Your task to perform on an android device: Search for logitech g pro on newegg, select the first entry, and add it to the cart. Image 0: 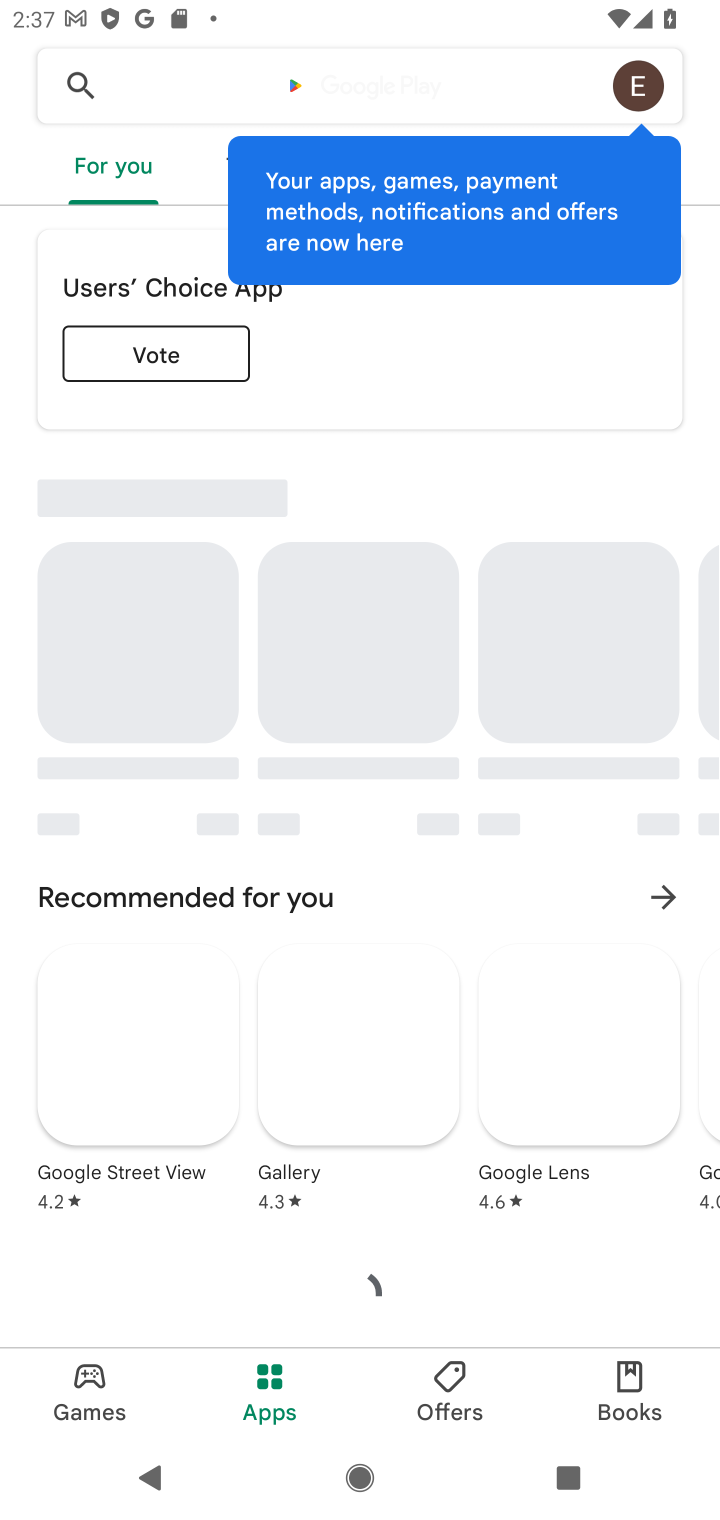
Step 0: press home button
Your task to perform on an android device: Search for logitech g pro on newegg, select the first entry, and add it to the cart. Image 1: 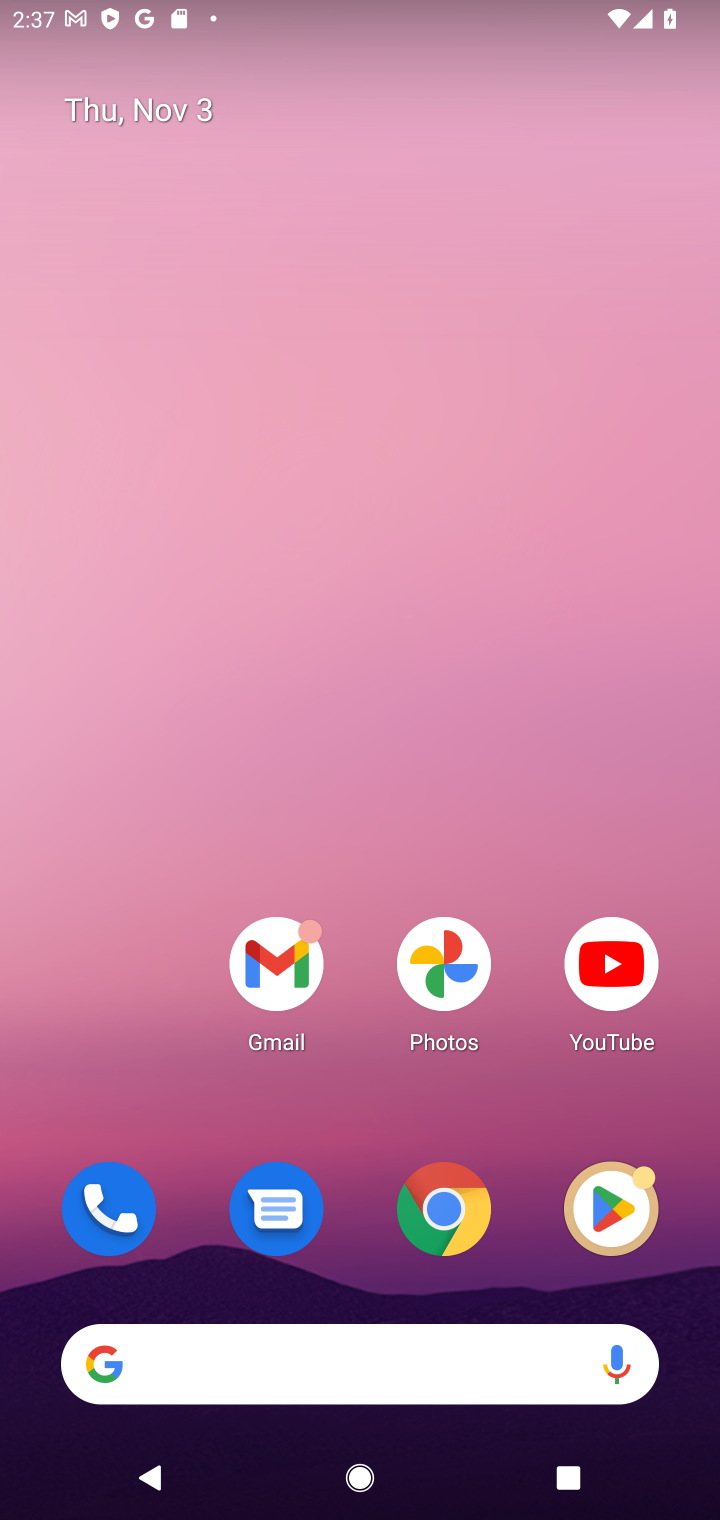
Step 1: click (444, 1216)
Your task to perform on an android device: Search for logitech g pro on newegg, select the first entry, and add it to the cart. Image 2: 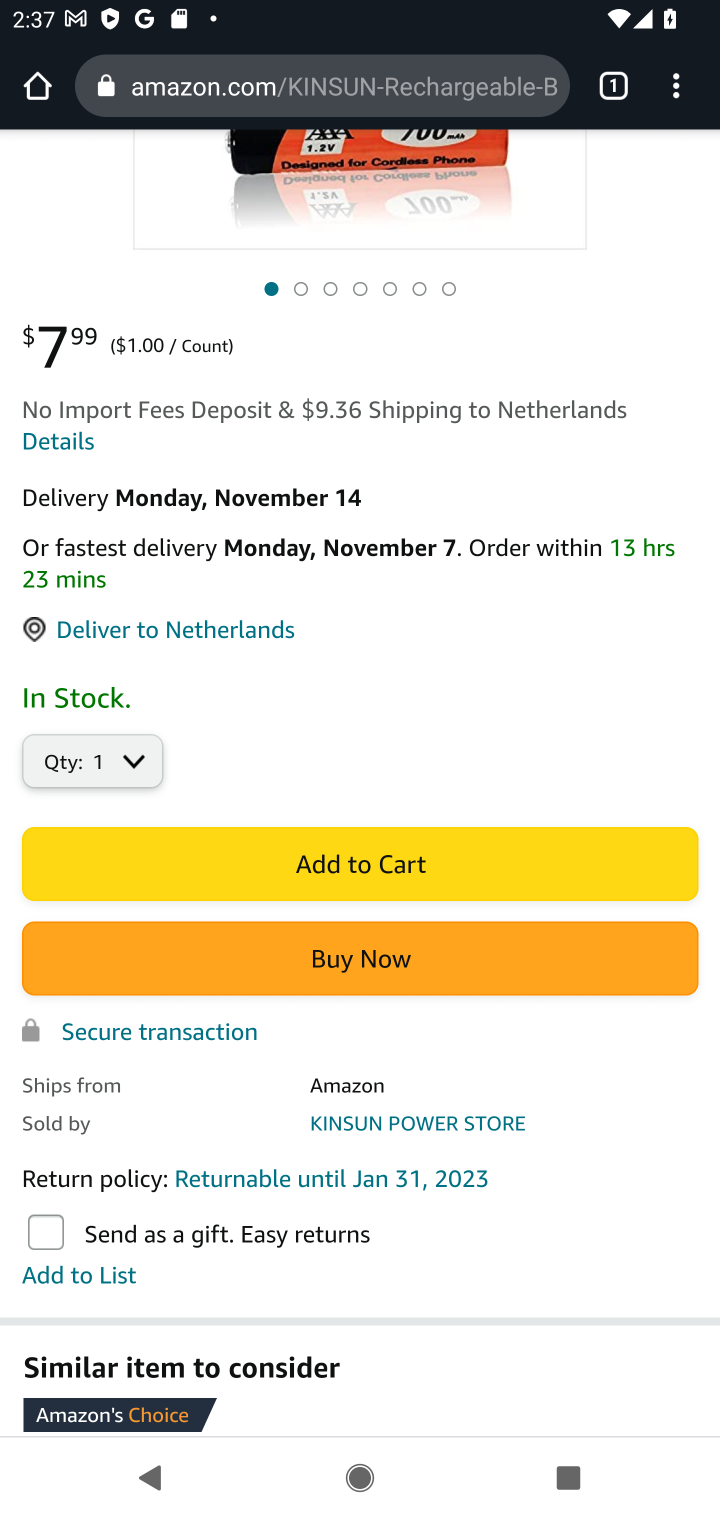
Step 2: click (412, 74)
Your task to perform on an android device: Search for logitech g pro on newegg, select the first entry, and add it to the cart. Image 3: 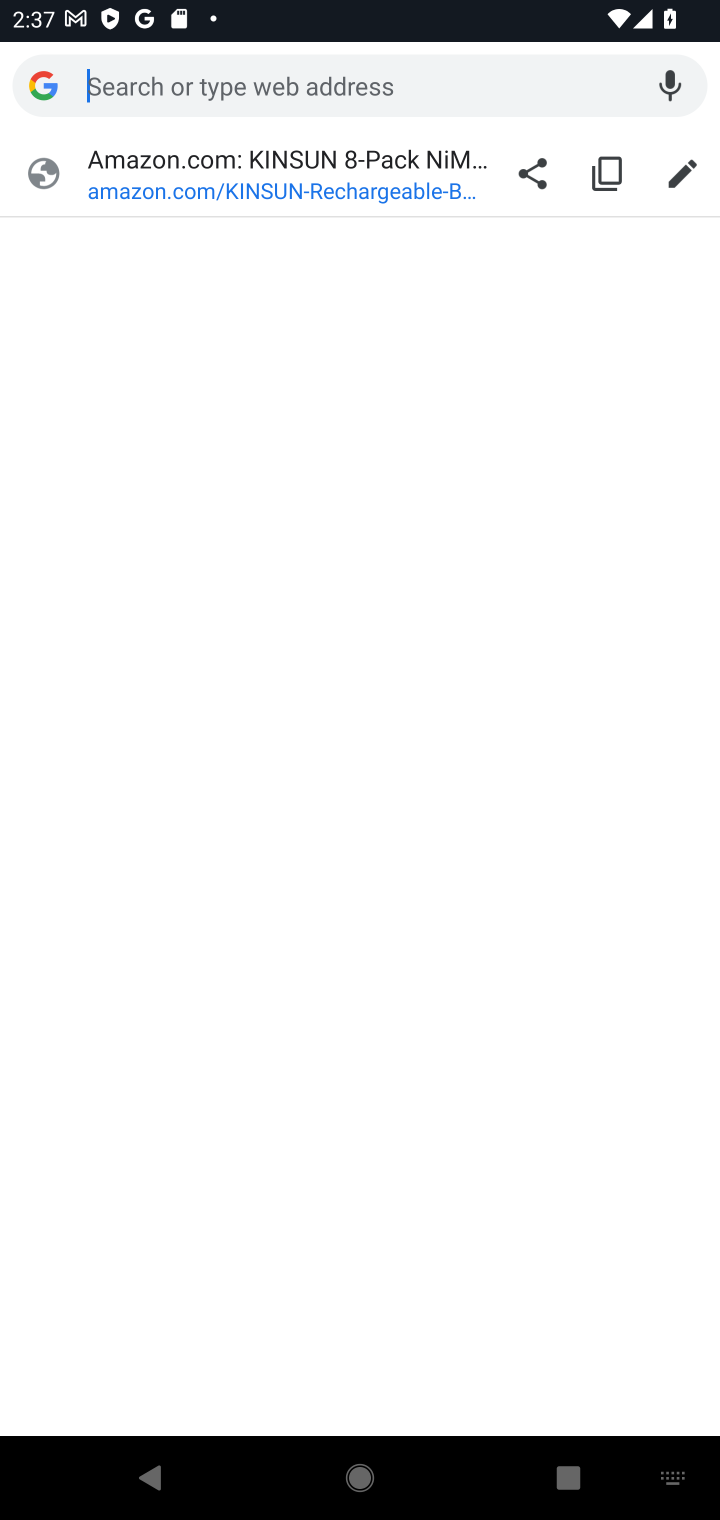
Step 3: type "newegg"
Your task to perform on an android device: Search for logitech g pro on newegg, select the first entry, and add it to the cart. Image 4: 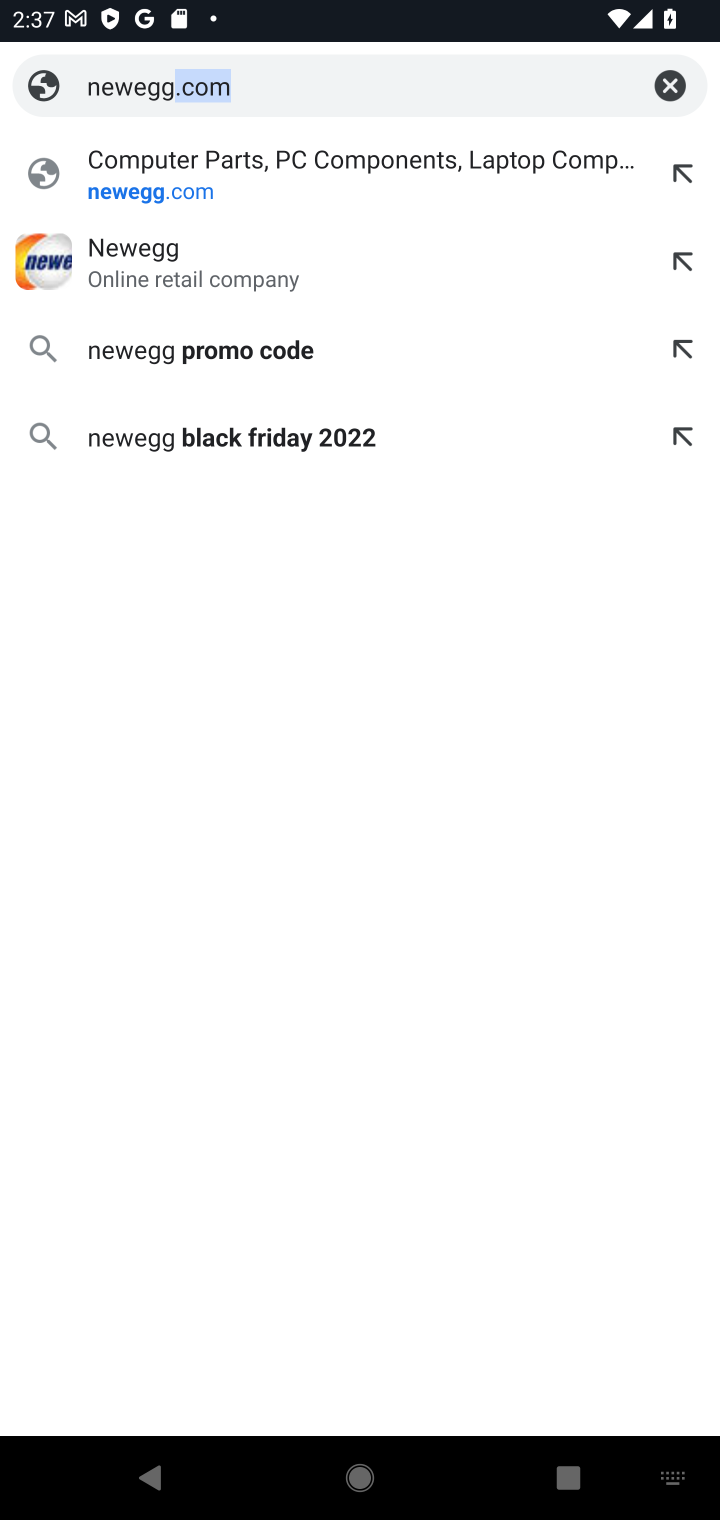
Step 4: click (359, 265)
Your task to perform on an android device: Search for logitech g pro on newegg, select the first entry, and add it to the cart. Image 5: 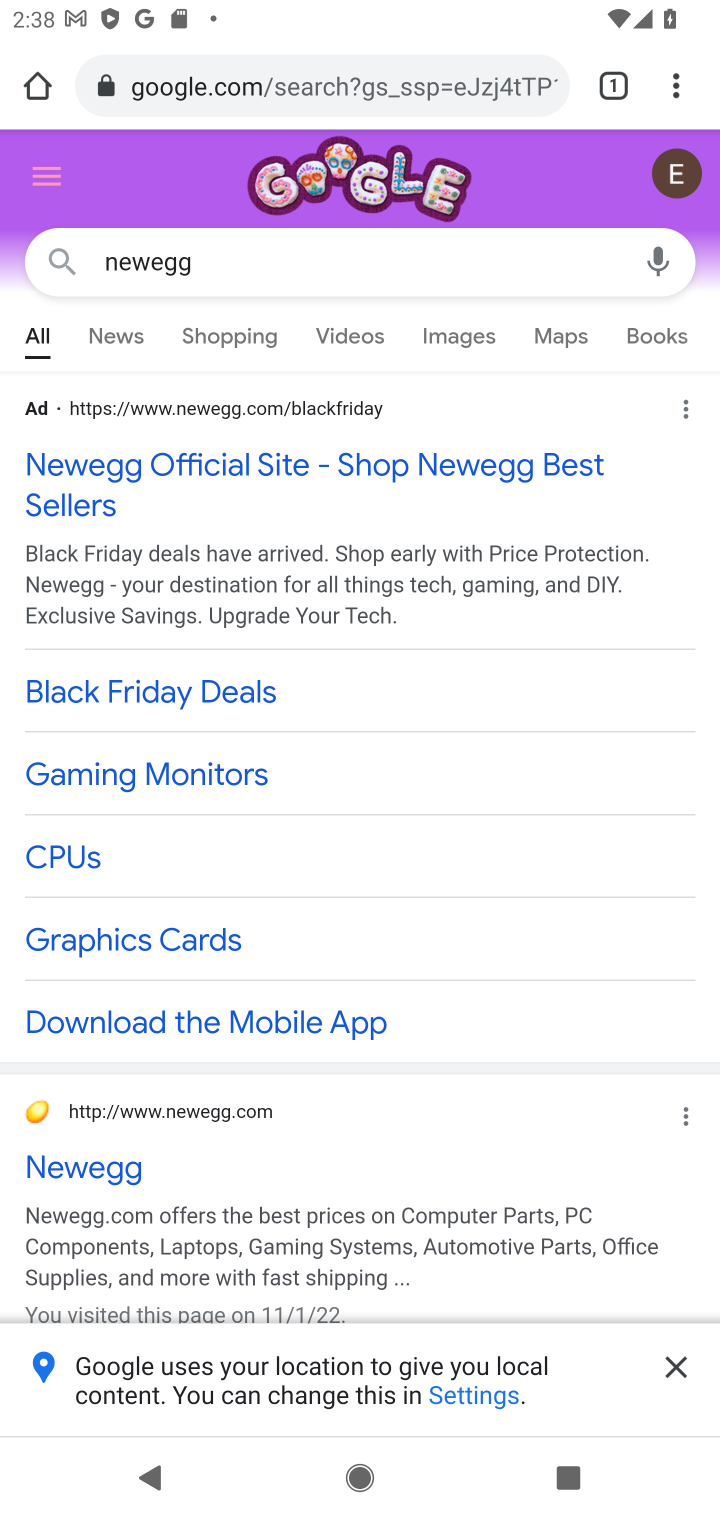
Step 5: click (124, 1175)
Your task to perform on an android device: Search for logitech g pro on newegg, select the first entry, and add it to the cart. Image 6: 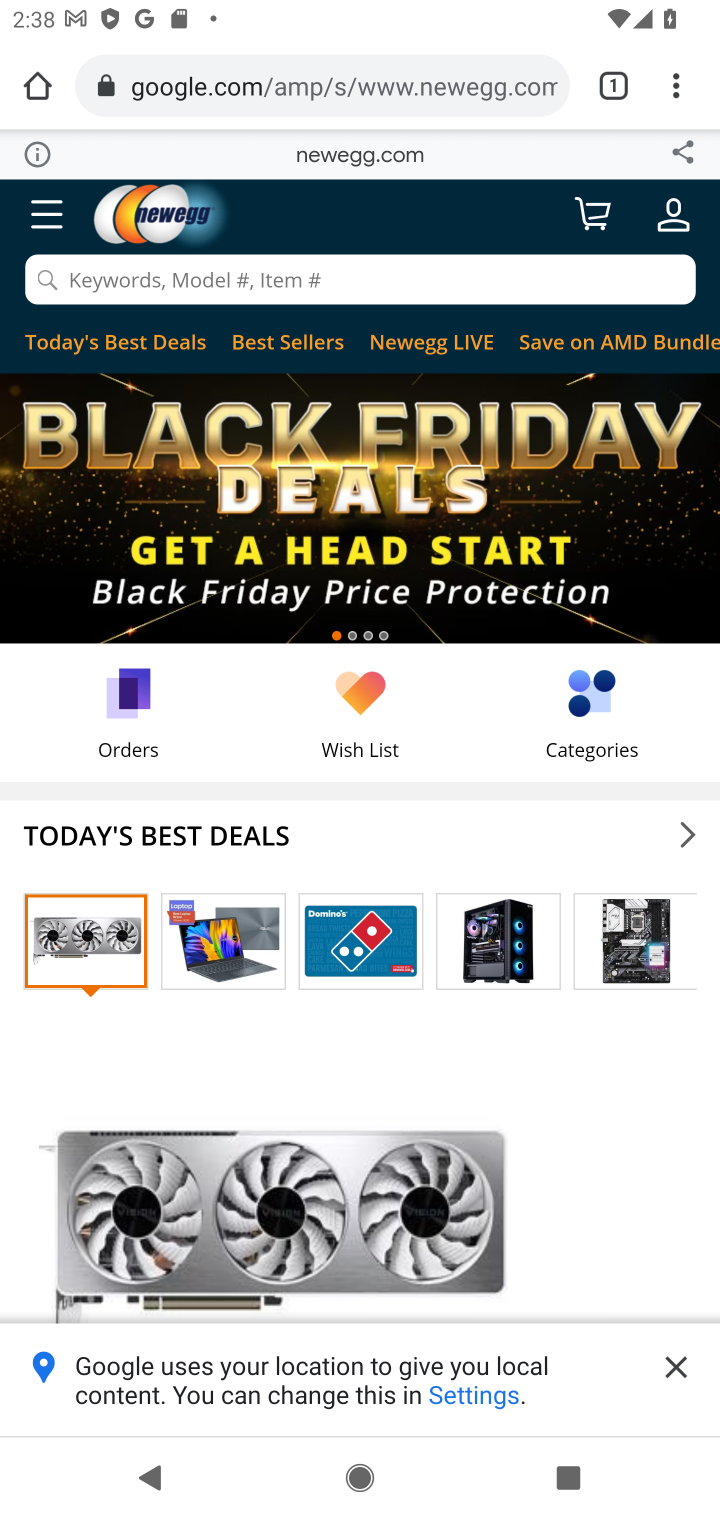
Step 6: click (456, 285)
Your task to perform on an android device: Search for logitech g pro on newegg, select the first entry, and add it to the cart. Image 7: 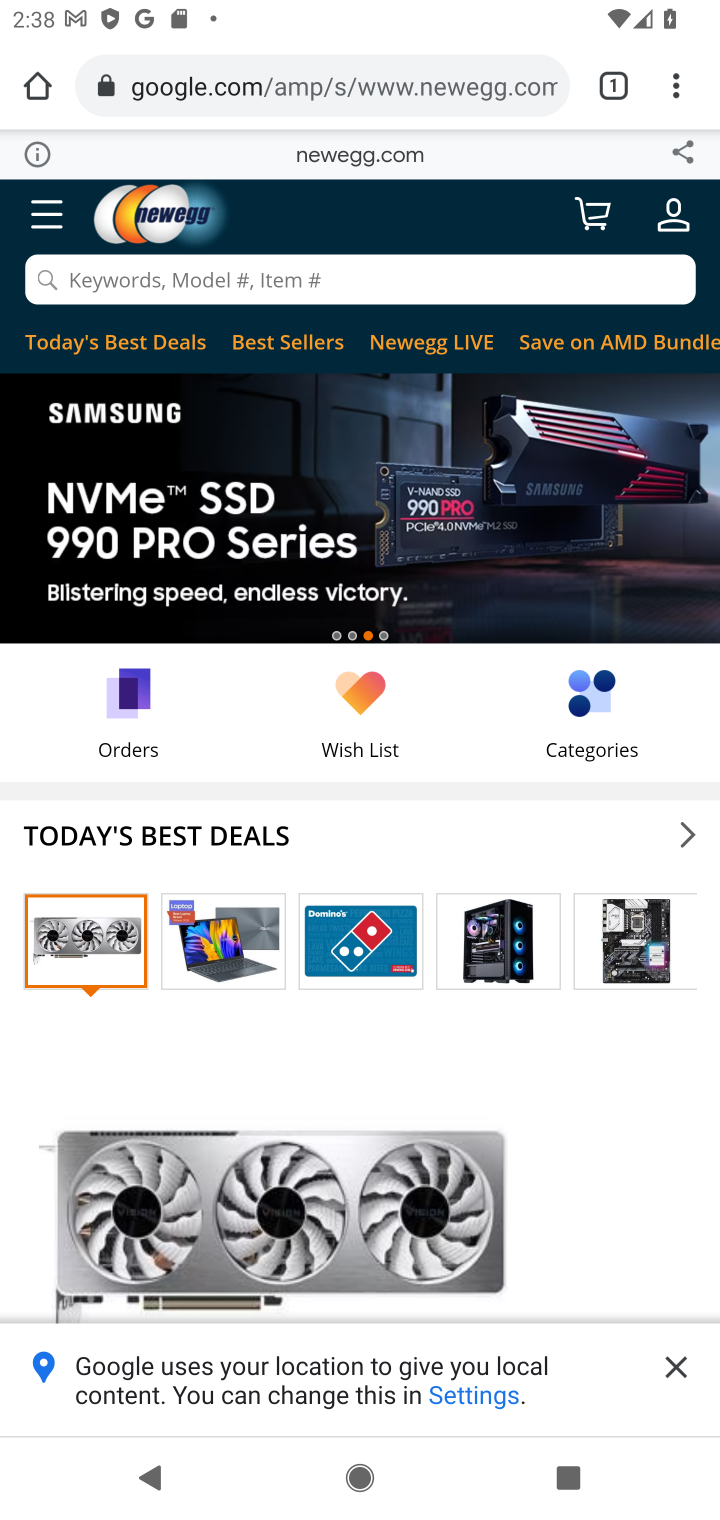
Step 7: click (484, 295)
Your task to perform on an android device: Search for logitech g pro on newegg, select the first entry, and add it to the cart. Image 8: 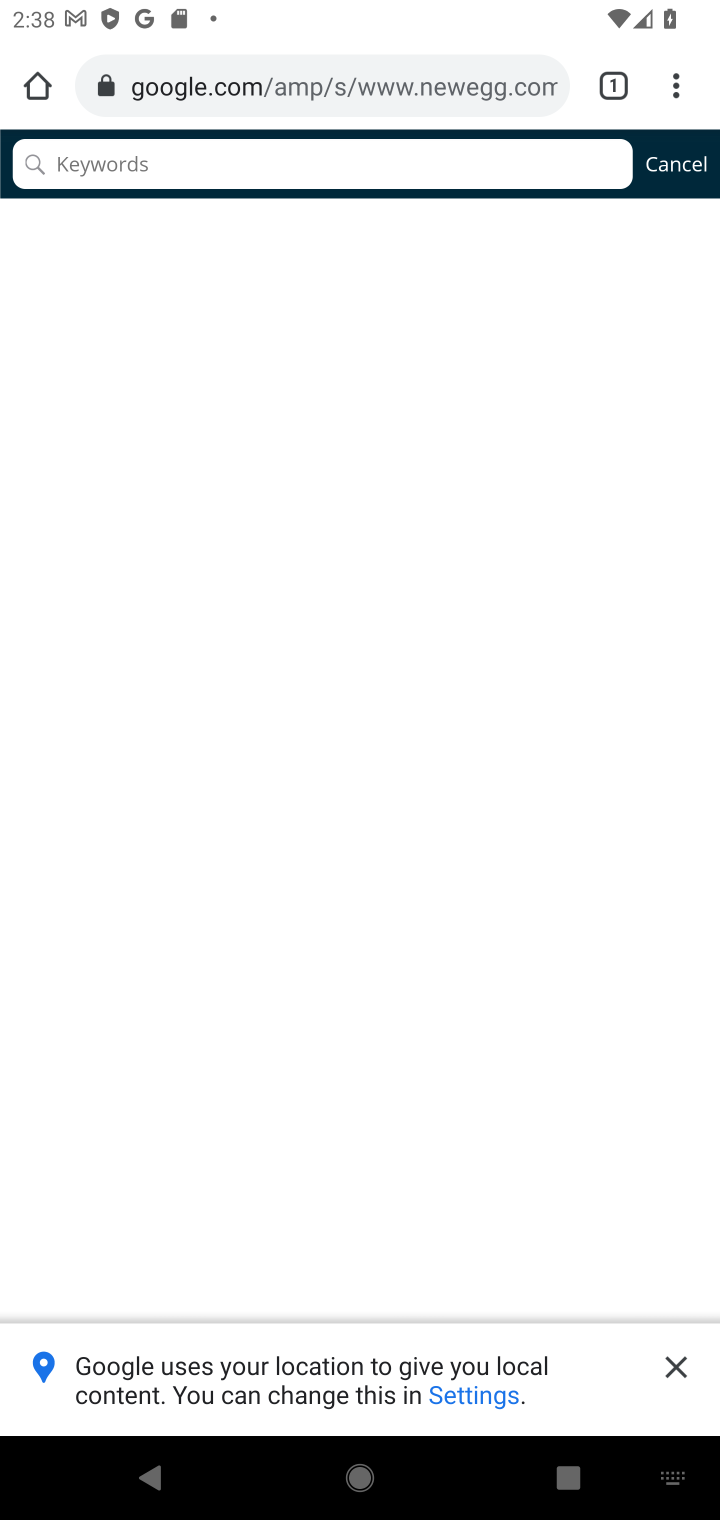
Step 8: type "logitech g pro"
Your task to perform on an android device: Search for logitech g pro on newegg, select the first entry, and add it to the cart. Image 9: 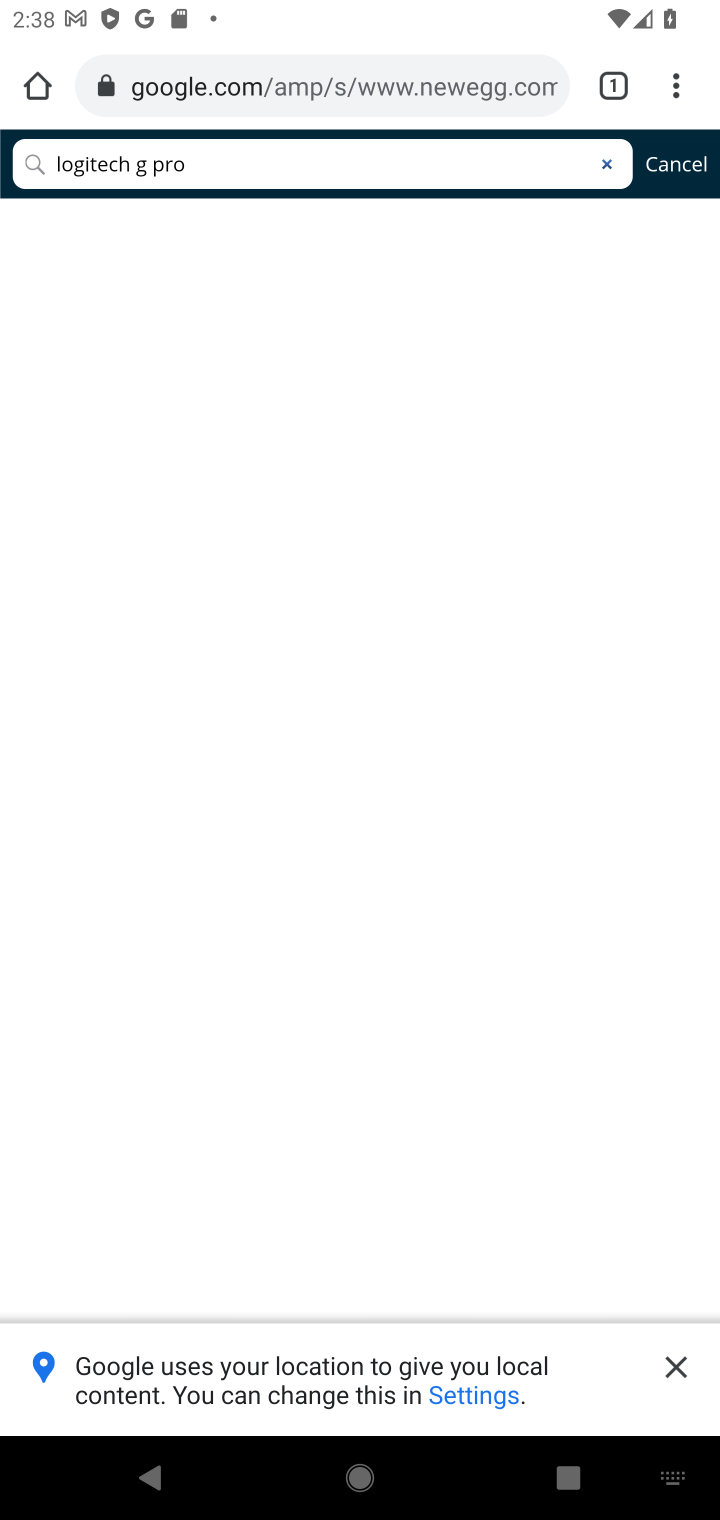
Step 9: press enter
Your task to perform on an android device: Search for logitech g pro on newegg, select the first entry, and add it to the cart. Image 10: 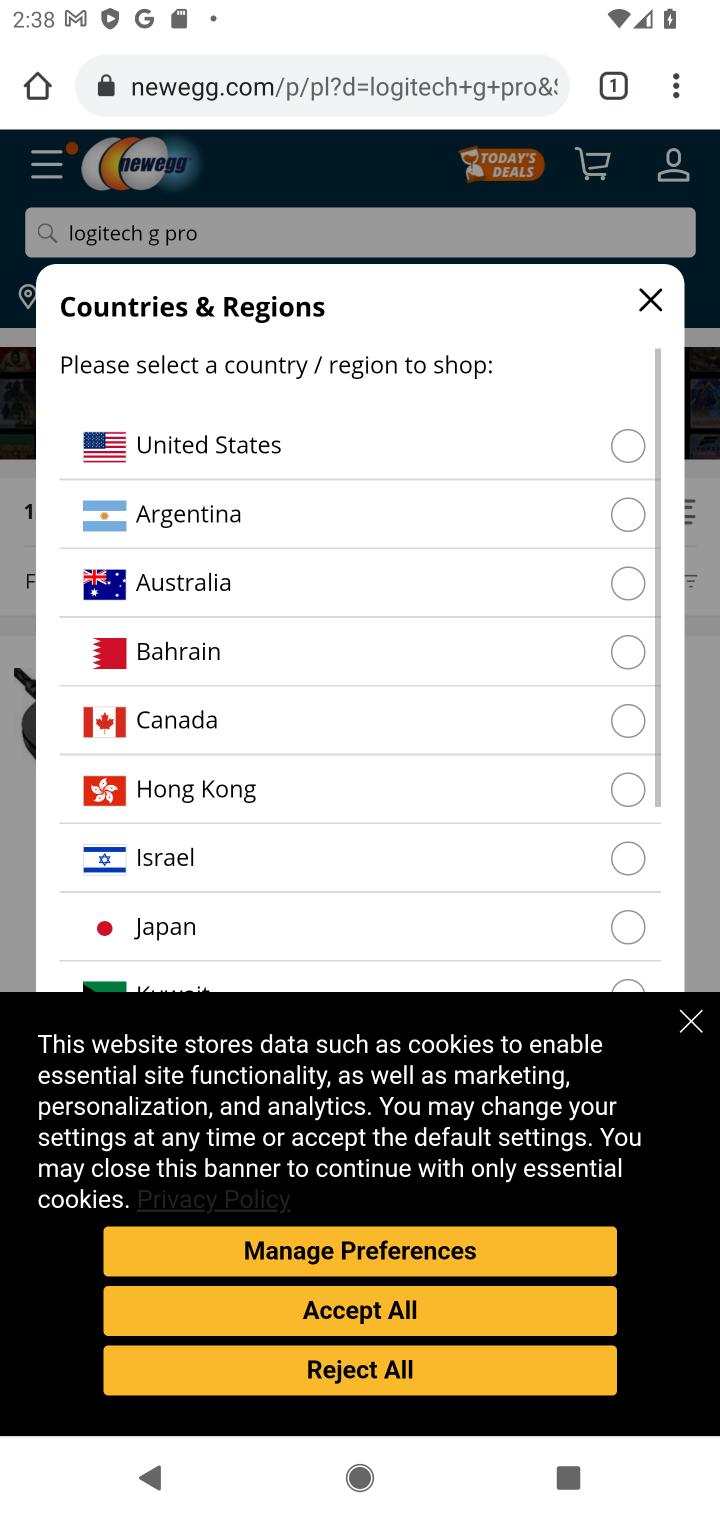
Step 10: click (404, 1304)
Your task to perform on an android device: Search for logitech g pro on newegg, select the first entry, and add it to the cart. Image 11: 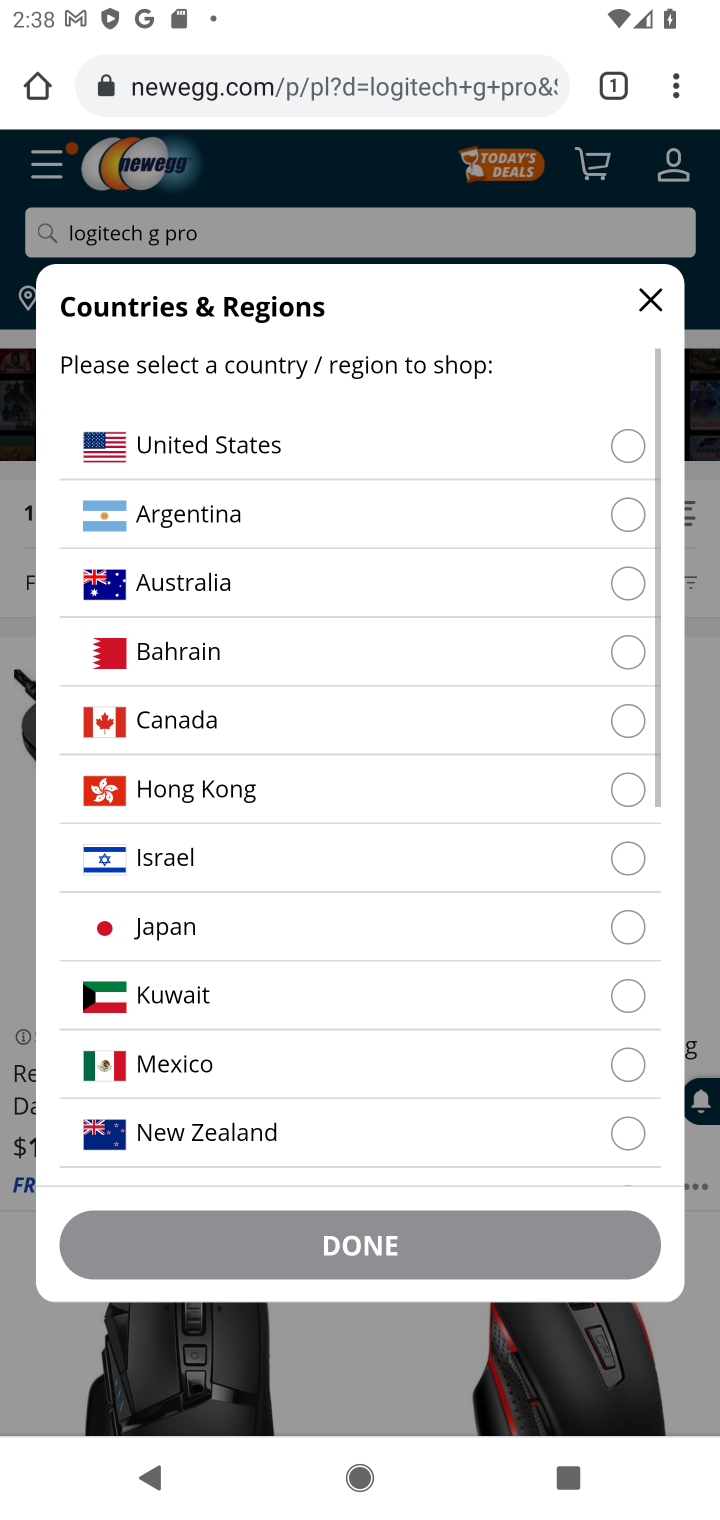
Step 11: click (323, 450)
Your task to perform on an android device: Search for logitech g pro on newegg, select the first entry, and add it to the cart. Image 12: 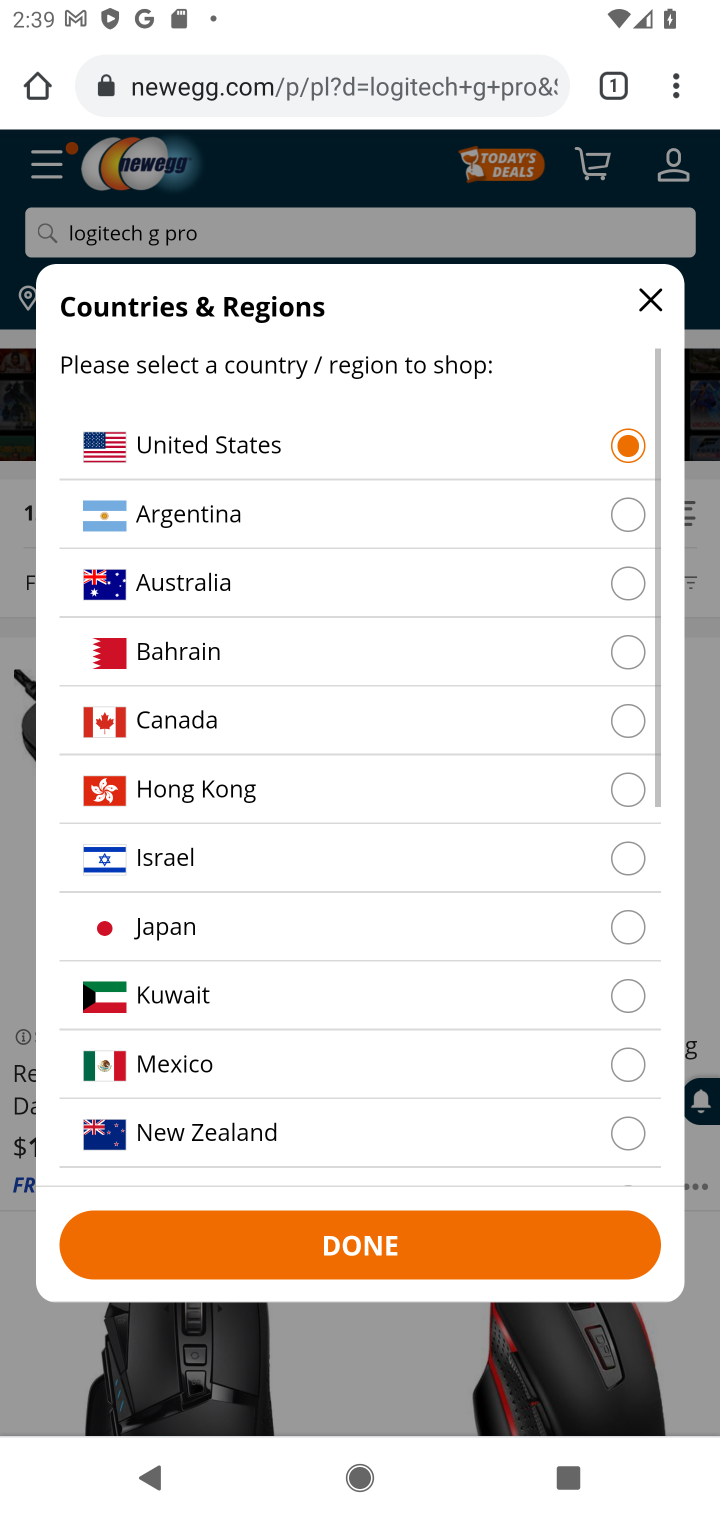
Step 12: click (420, 1237)
Your task to perform on an android device: Search for logitech g pro on newegg, select the first entry, and add it to the cart. Image 13: 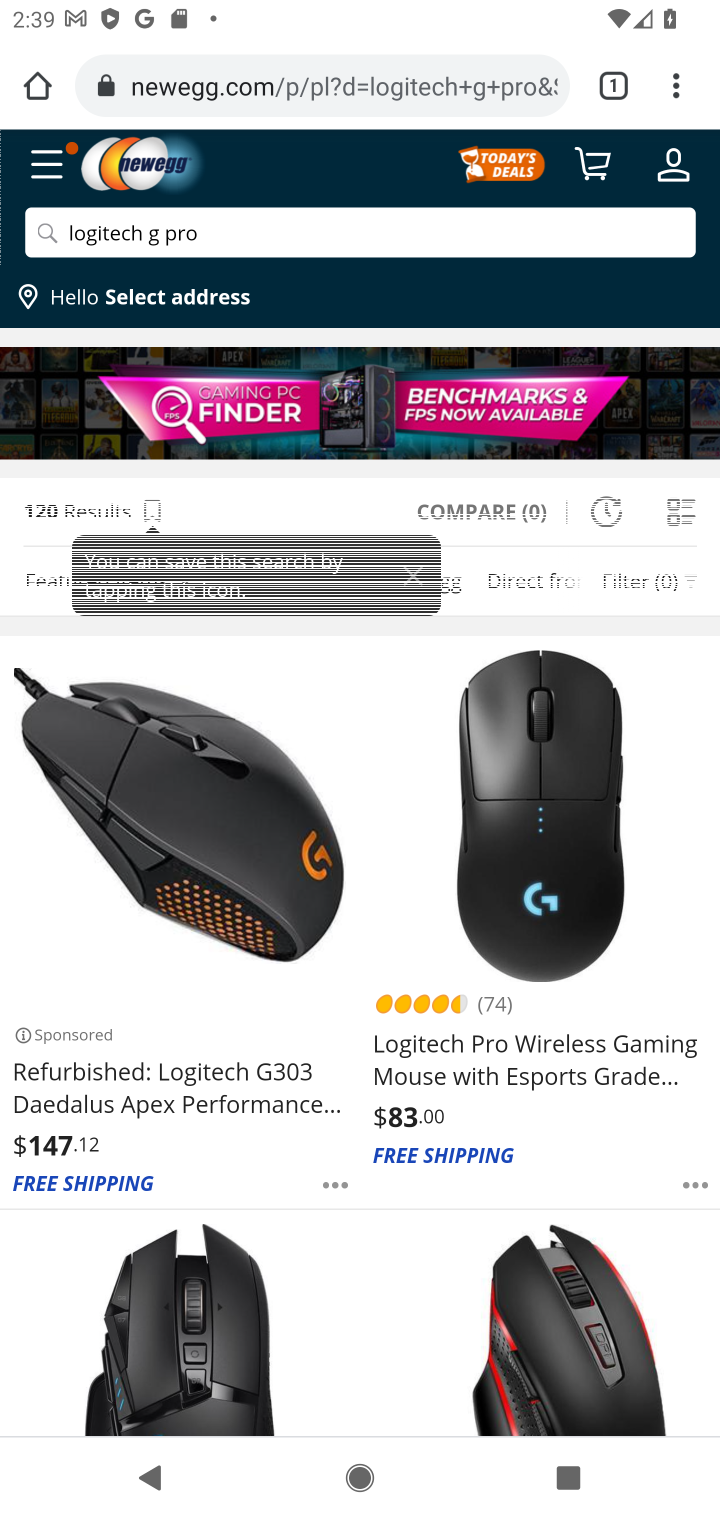
Step 13: drag from (393, 1247) to (224, 352)
Your task to perform on an android device: Search for logitech g pro on newegg, select the first entry, and add it to the cart. Image 14: 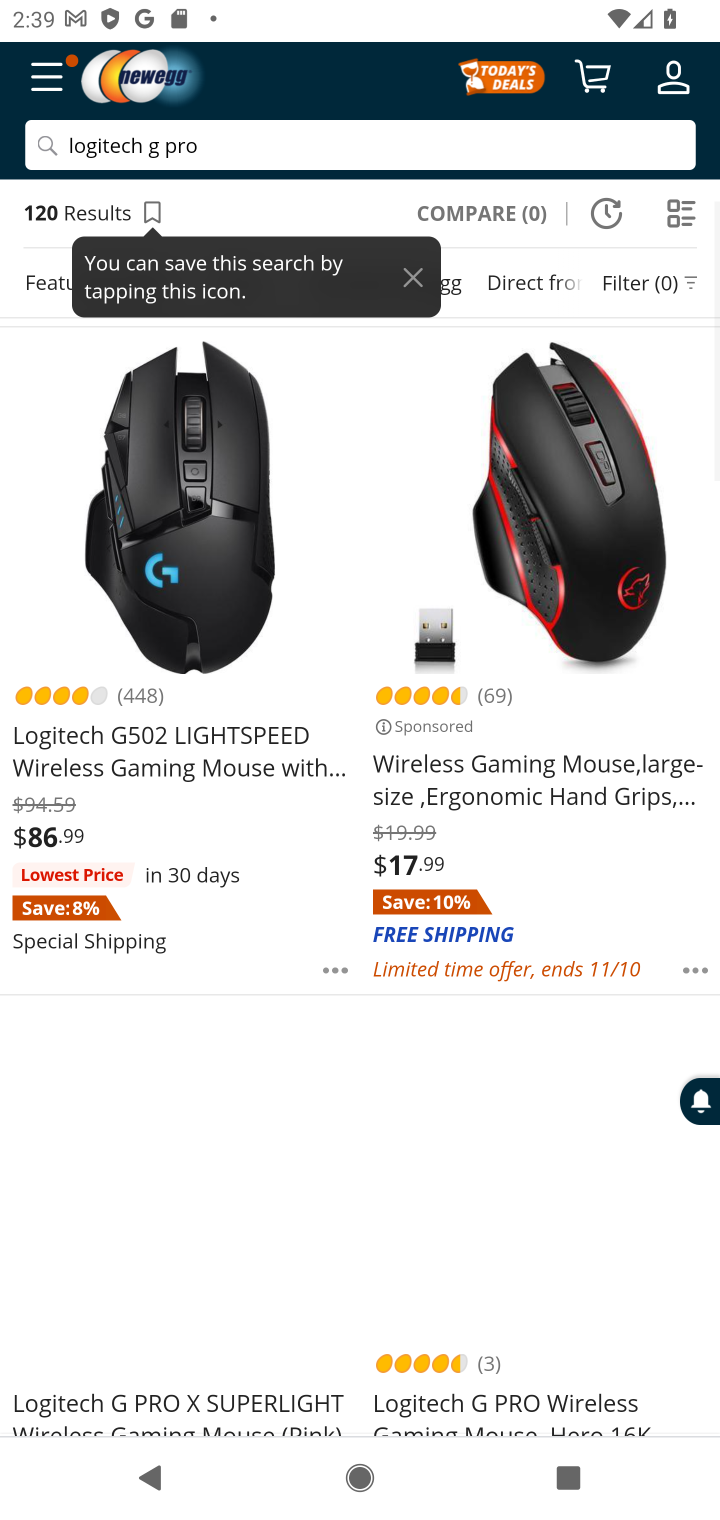
Step 14: drag from (309, 525) to (301, 1199)
Your task to perform on an android device: Search for logitech g pro on newegg, select the first entry, and add it to the cart. Image 15: 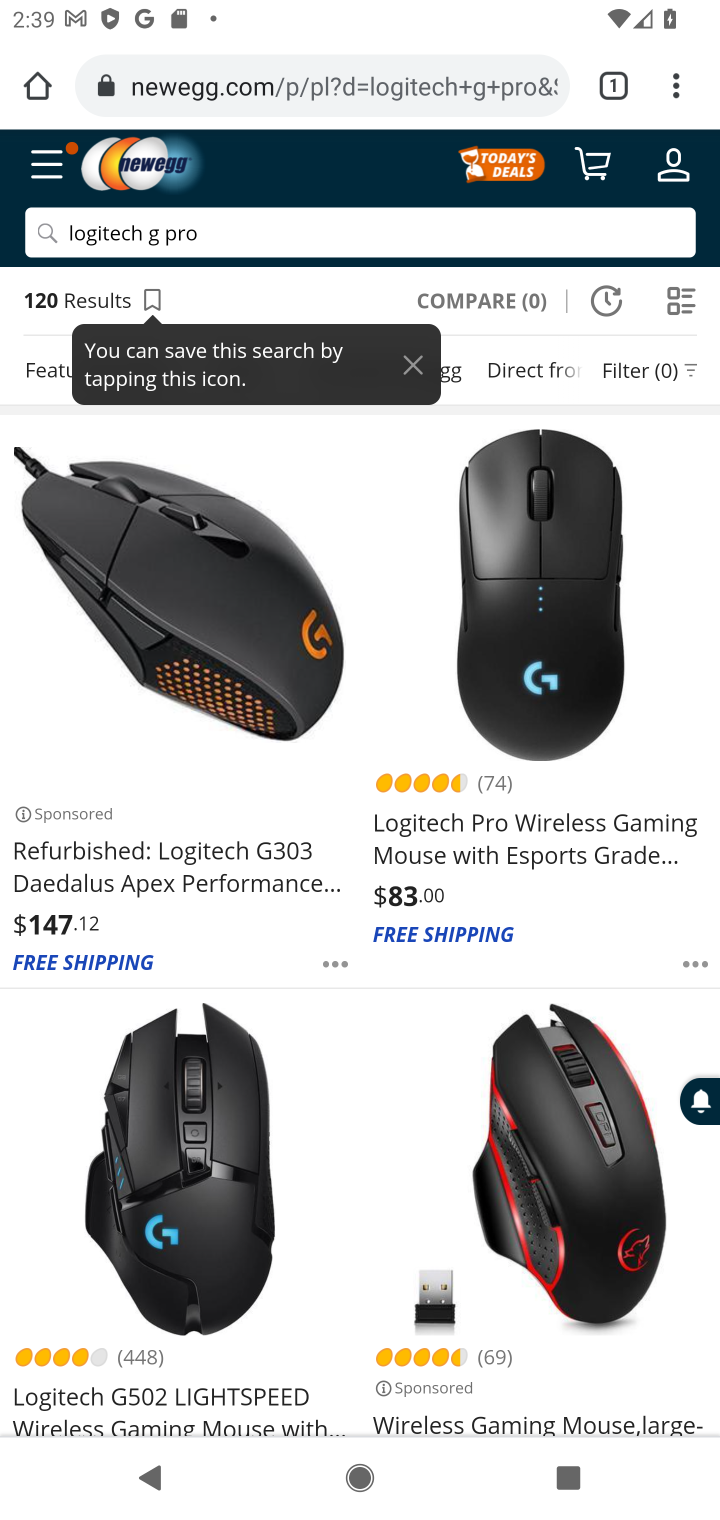
Step 15: click (235, 649)
Your task to perform on an android device: Search for logitech g pro on newegg, select the first entry, and add it to the cart. Image 16: 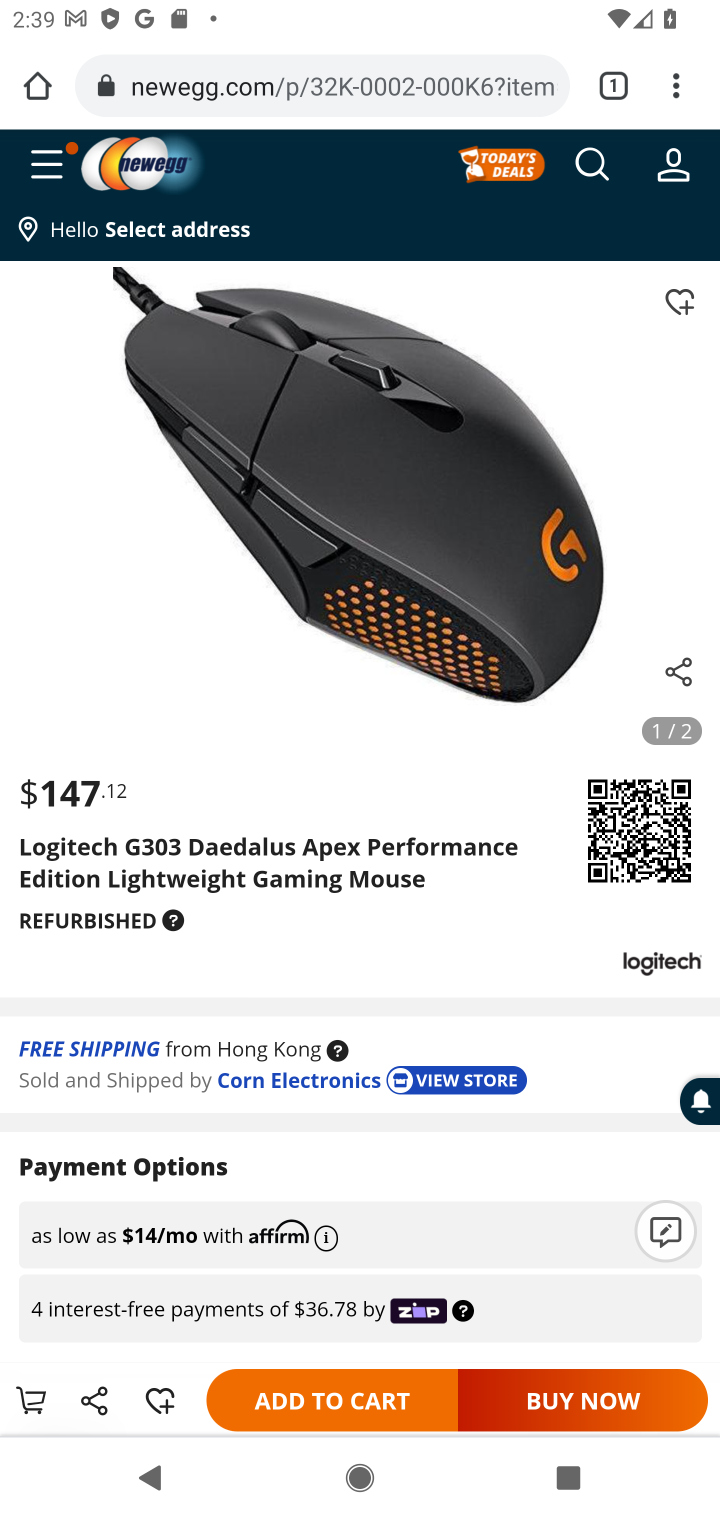
Step 16: click (387, 1400)
Your task to perform on an android device: Search for logitech g pro on newegg, select the first entry, and add it to the cart. Image 17: 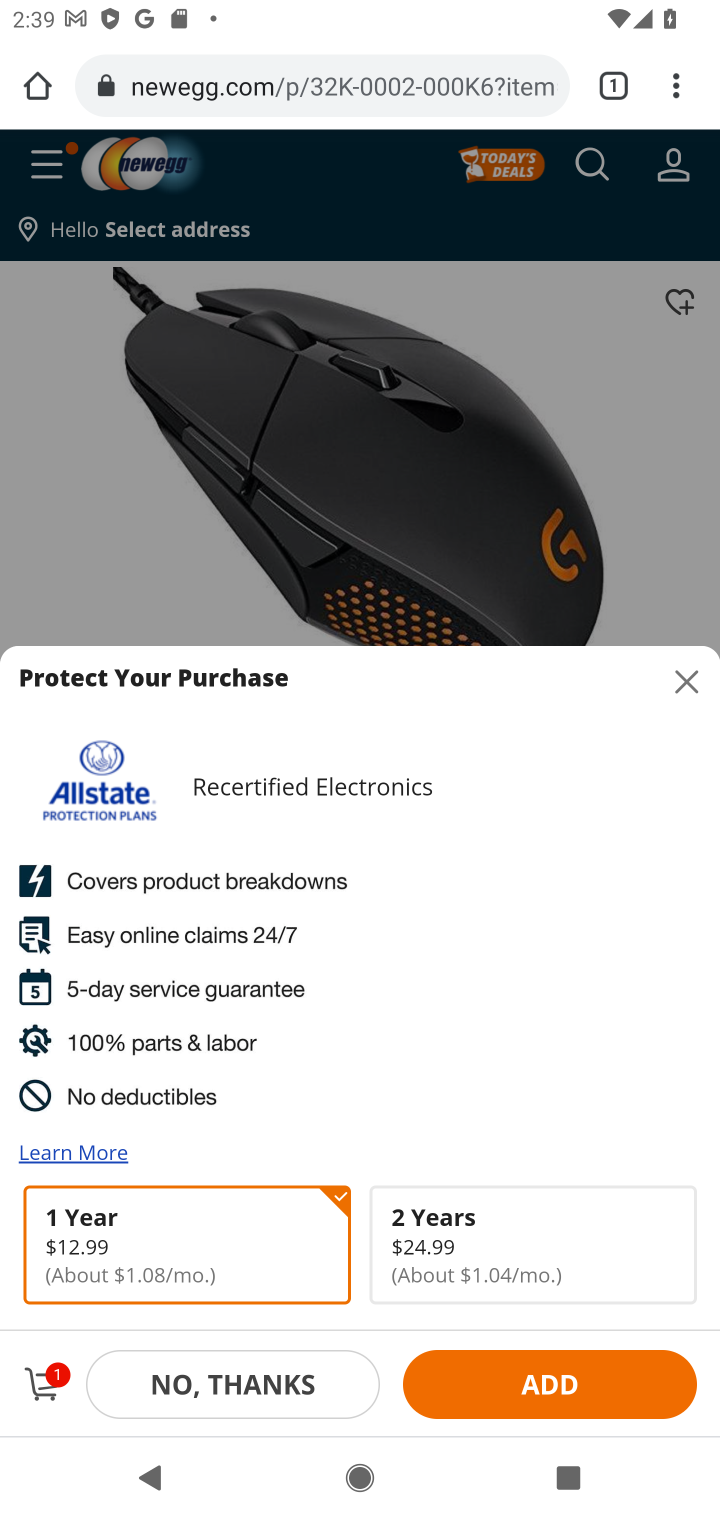
Step 17: click (339, 1373)
Your task to perform on an android device: Search for logitech g pro on newegg, select the first entry, and add it to the cart. Image 18: 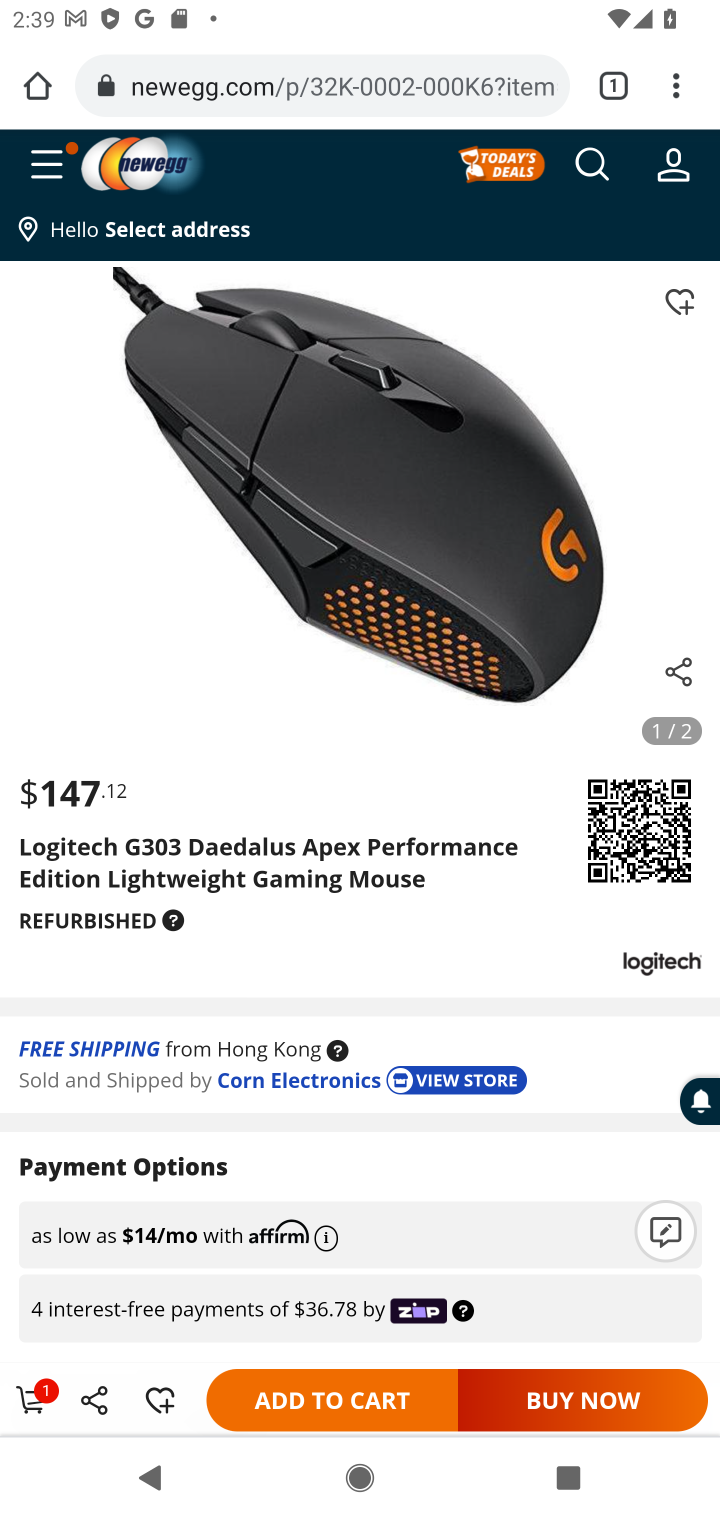
Step 18: task complete